Your task to perform on an android device: check google app version Image 0: 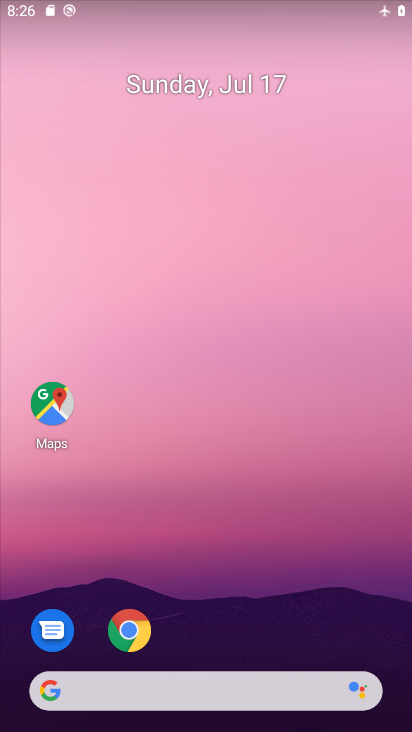
Step 0: click (51, 688)
Your task to perform on an android device: check google app version Image 1: 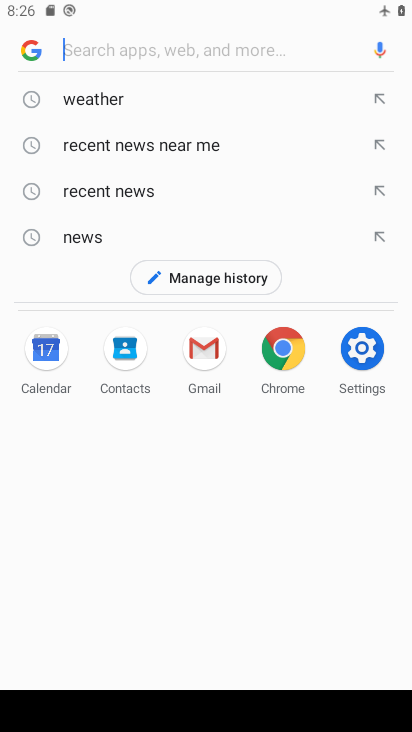
Step 1: click (25, 47)
Your task to perform on an android device: check google app version Image 2: 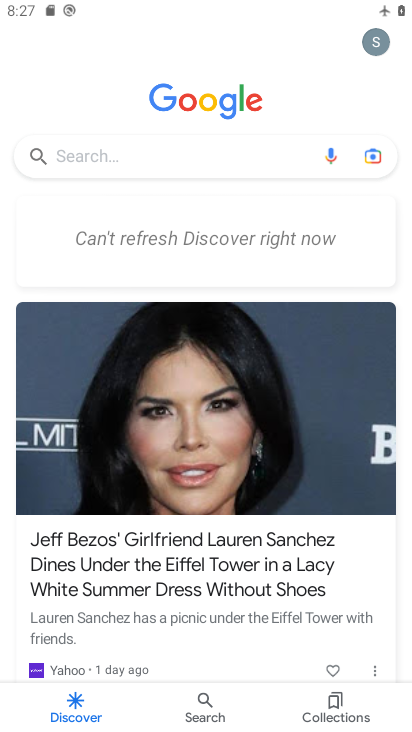
Step 2: click (378, 51)
Your task to perform on an android device: check google app version Image 3: 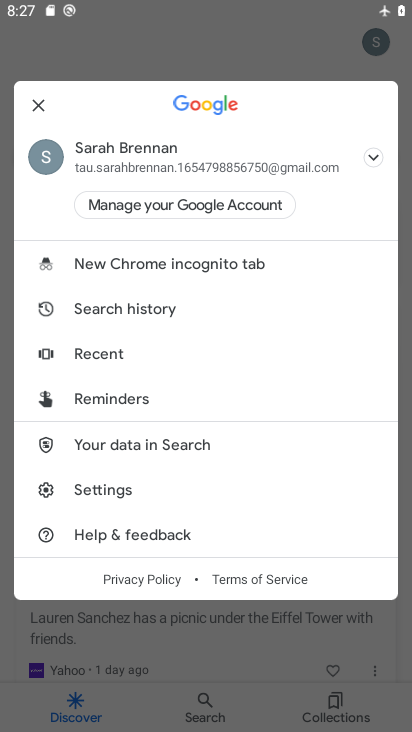
Step 3: click (96, 491)
Your task to perform on an android device: check google app version Image 4: 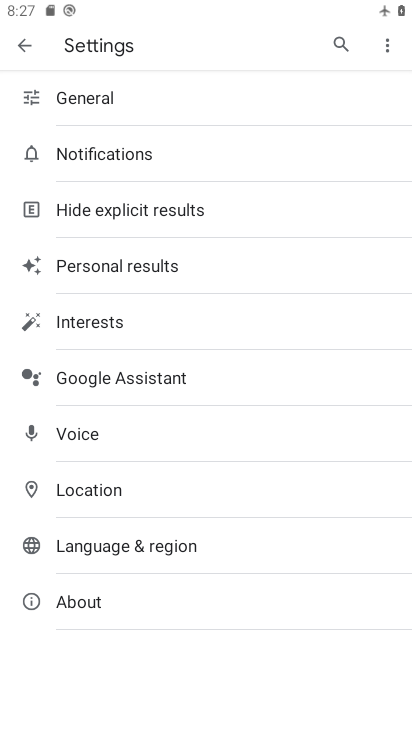
Step 4: click (114, 587)
Your task to perform on an android device: check google app version Image 5: 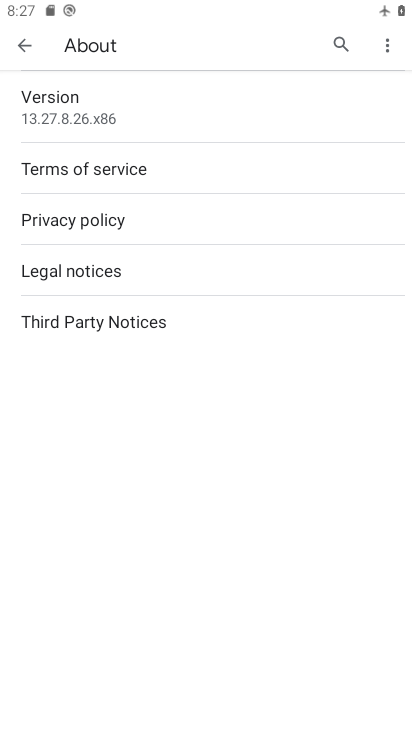
Step 5: task complete